Your task to perform on an android device: Go to battery settings Image 0: 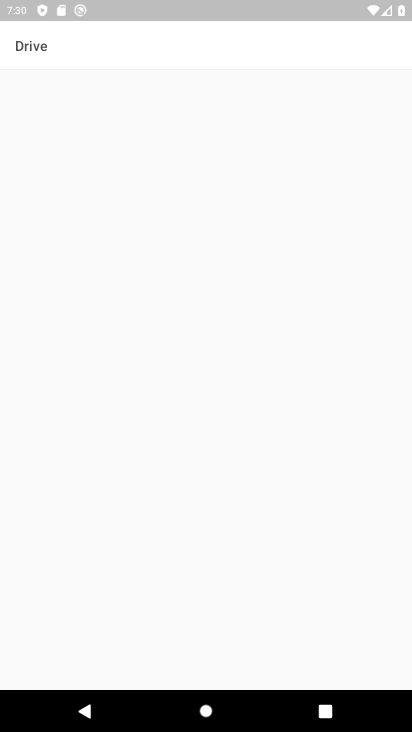
Step 0: press home button
Your task to perform on an android device: Go to battery settings Image 1: 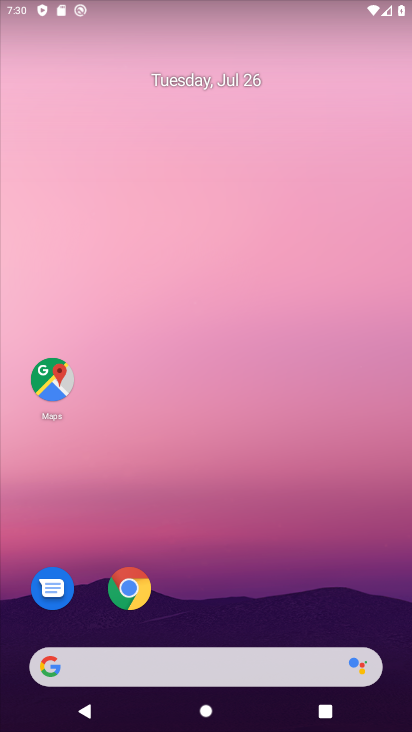
Step 1: drag from (192, 518) to (178, 186)
Your task to perform on an android device: Go to battery settings Image 2: 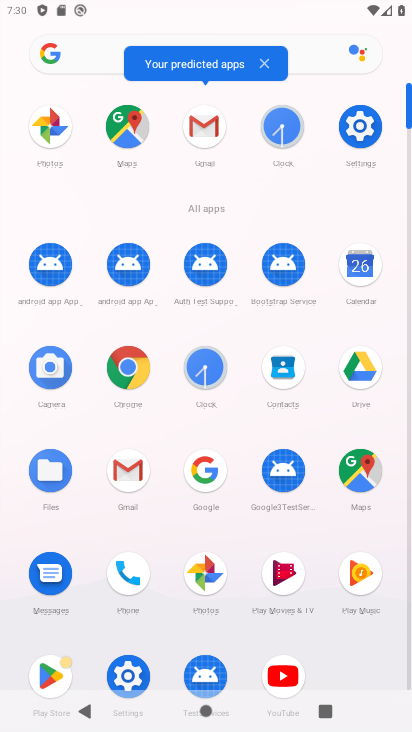
Step 2: click (367, 116)
Your task to perform on an android device: Go to battery settings Image 3: 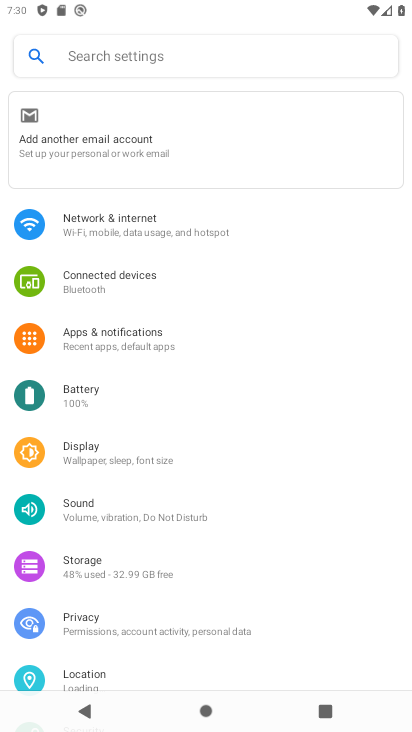
Step 3: click (57, 400)
Your task to perform on an android device: Go to battery settings Image 4: 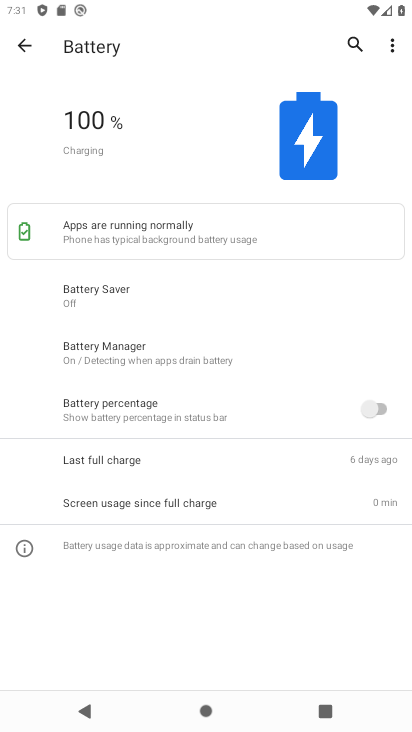
Step 4: task complete